Your task to perform on an android device: open app "Adobe Acrobat Reader: Edit PDF" Image 0: 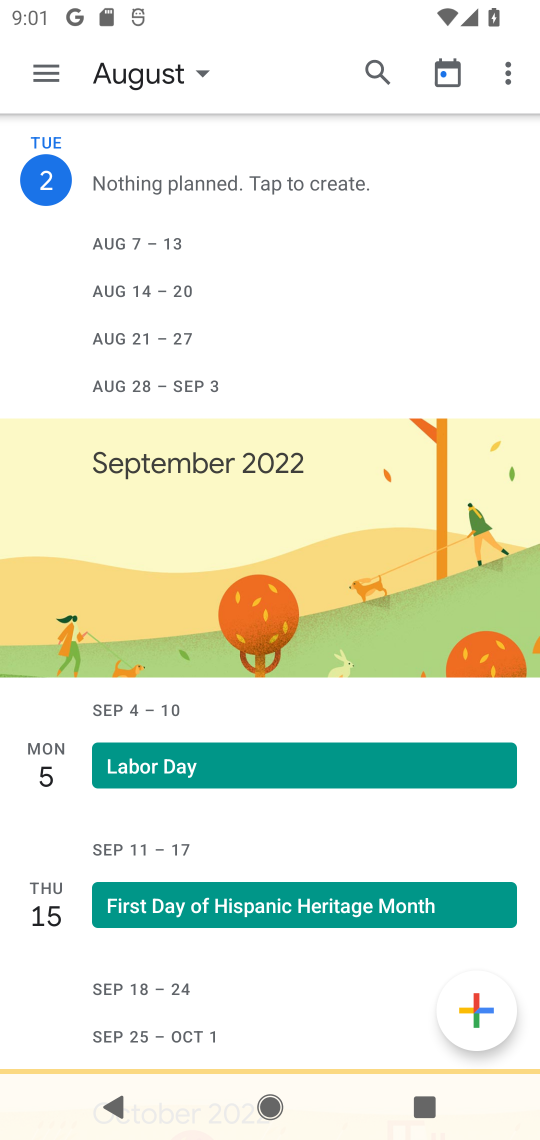
Step 0: press home button
Your task to perform on an android device: open app "Adobe Acrobat Reader: Edit PDF" Image 1: 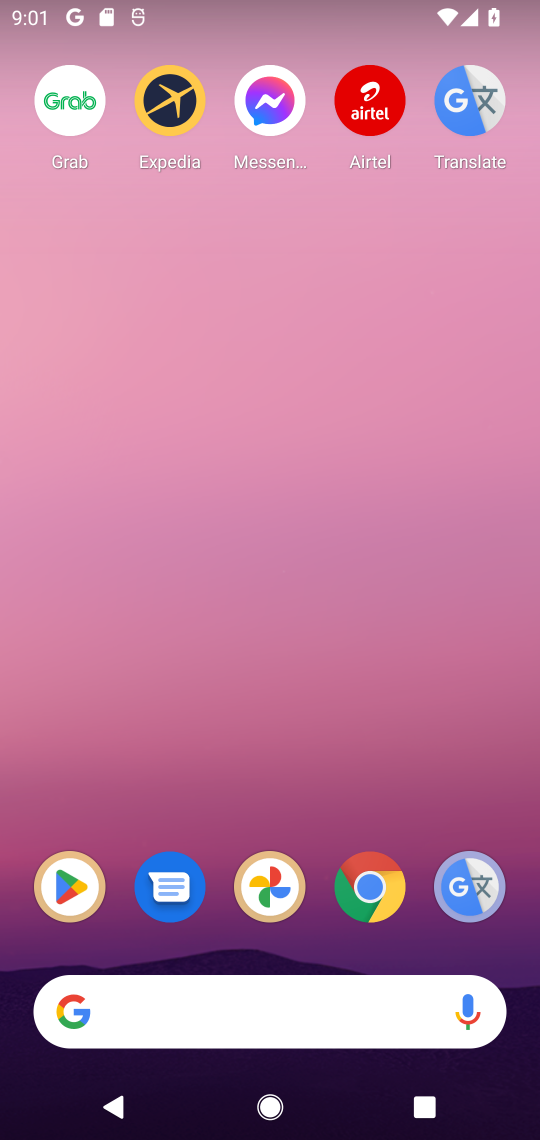
Step 1: click (56, 895)
Your task to perform on an android device: open app "Adobe Acrobat Reader: Edit PDF" Image 2: 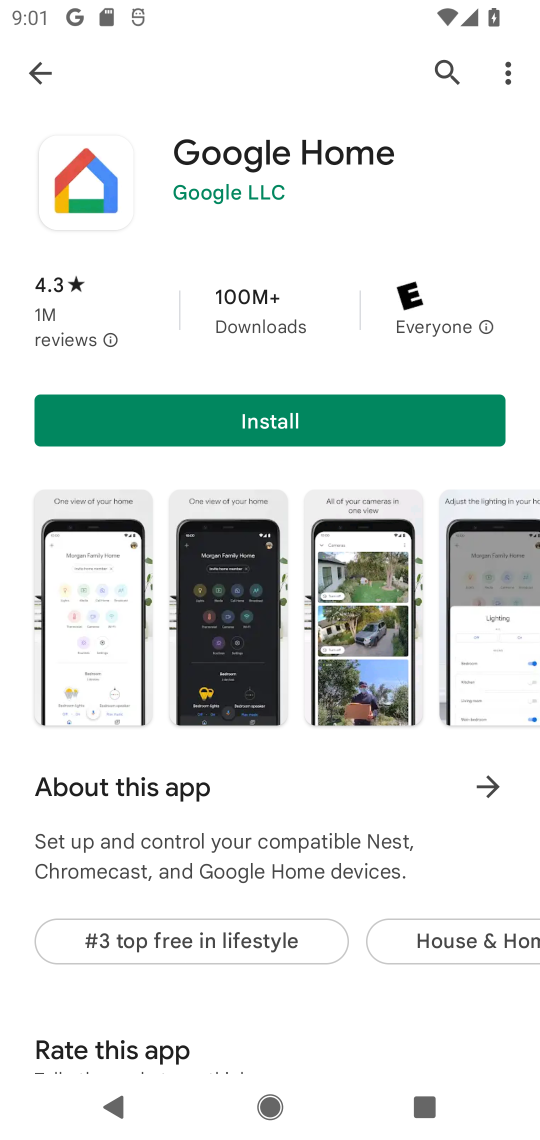
Step 2: click (454, 75)
Your task to perform on an android device: open app "Adobe Acrobat Reader: Edit PDF" Image 3: 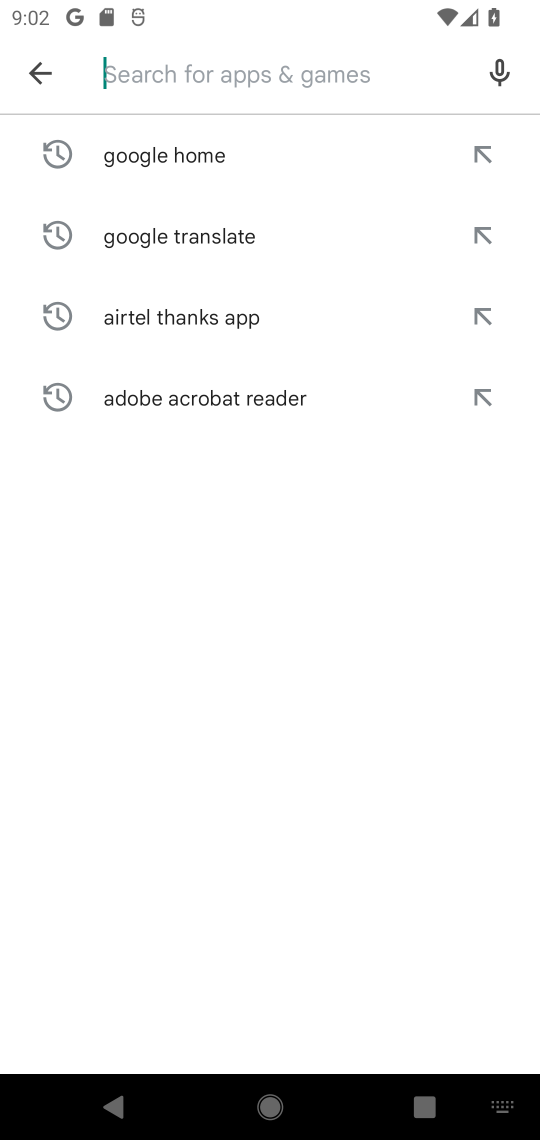
Step 3: type "adobe acrobat reader: edit pdf"
Your task to perform on an android device: open app "Adobe Acrobat Reader: Edit PDF" Image 4: 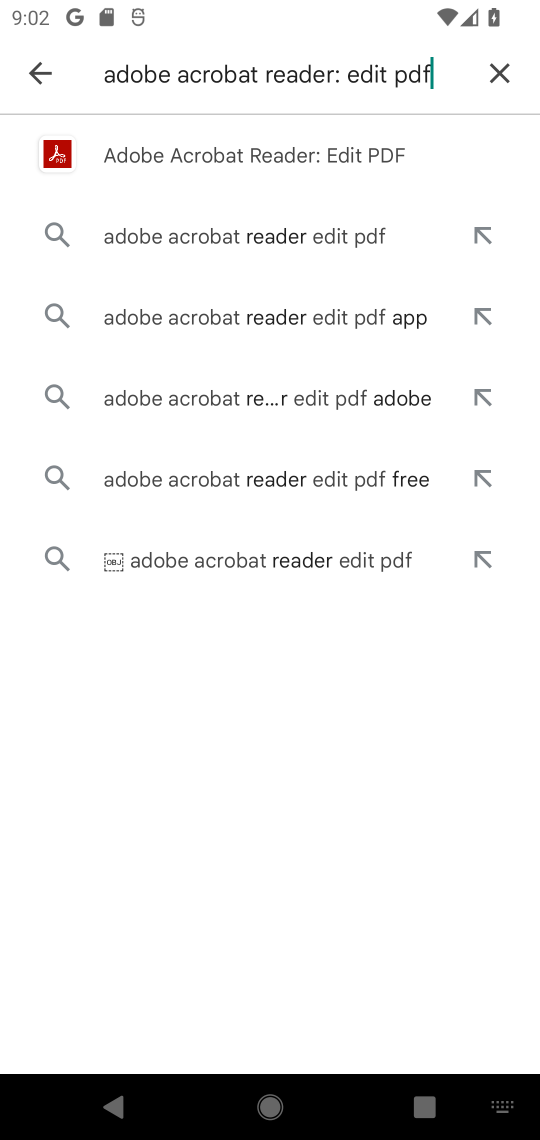
Step 4: click (178, 146)
Your task to perform on an android device: open app "Adobe Acrobat Reader: Edit PDF" Image 5: 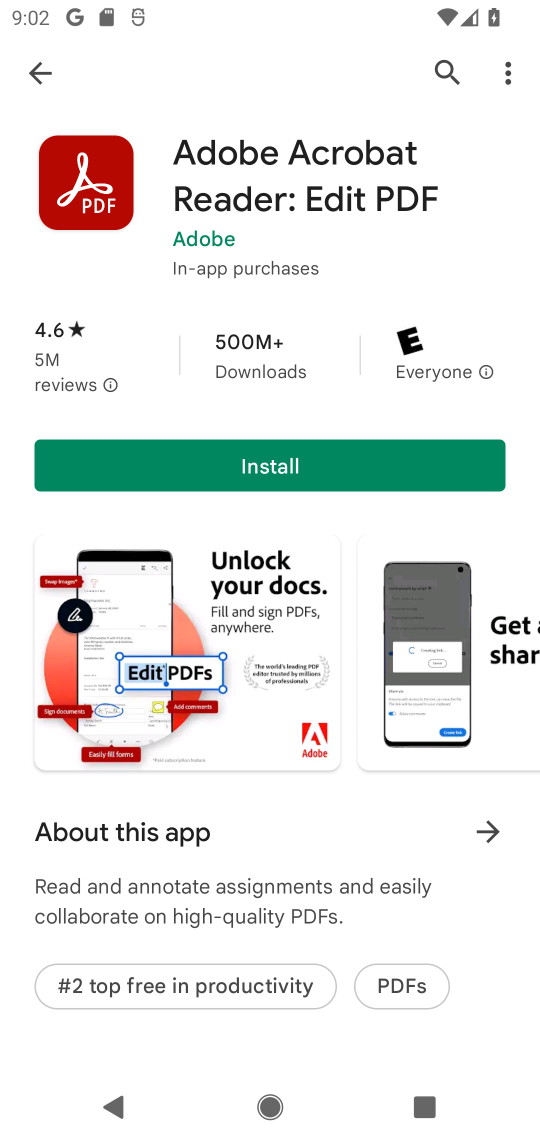
Step 5: task complete